Your task to perform on an android device: Open Amazon Image 0: 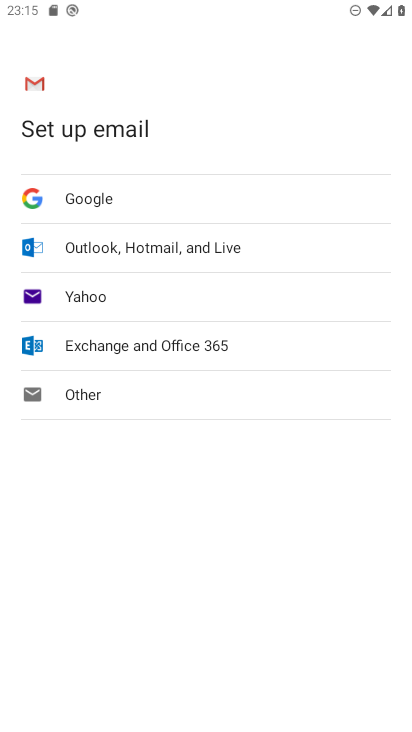
Step 0: press home button
Your task to perform on an android device: Open Amazon Image 1: 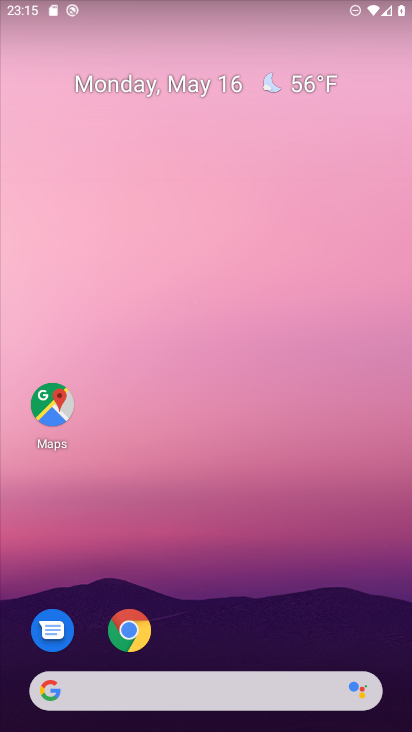
Step 1: drag from (236, 578) to (198, 234)
Your task to perform on an android device: Open Amazon Image 2: 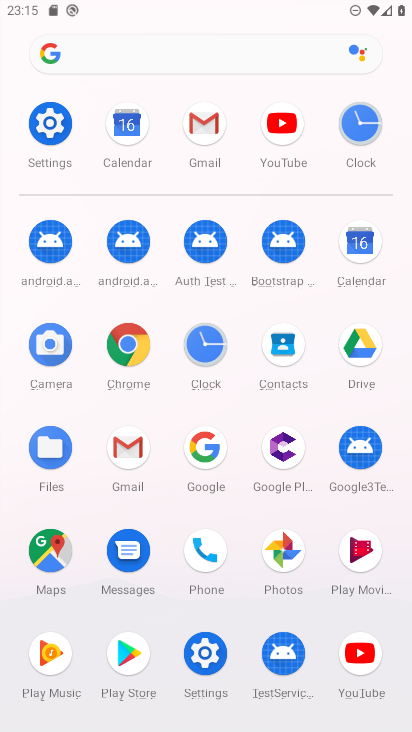
Step 2: click (200, 440)
Your task to perform on an android device: Open Amazon Image 3: 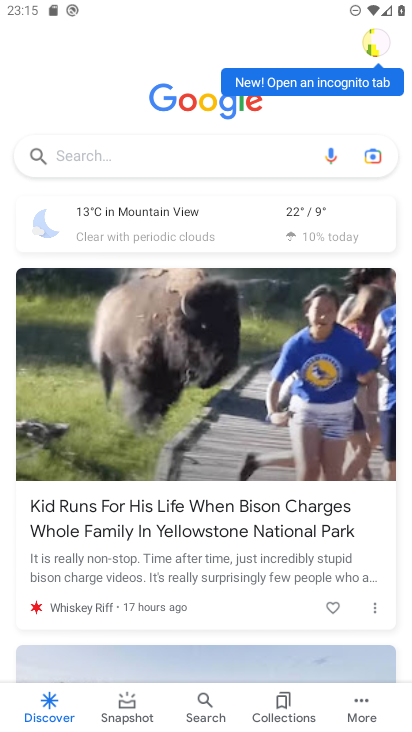
Step 3: click (182, 156)
Your task to perform on an android device: Open Amazon Image 4: 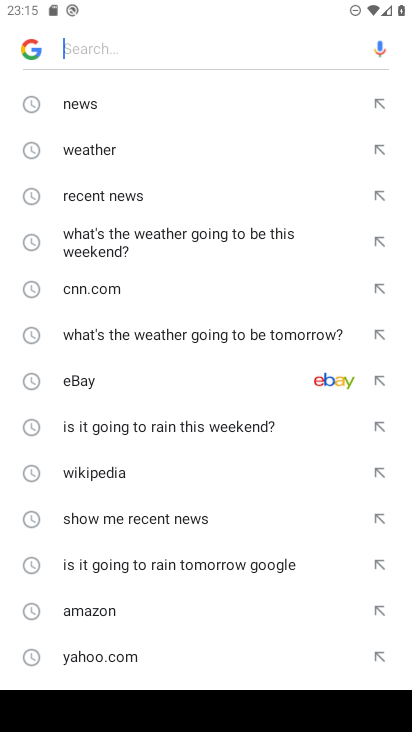
Step 4: click (106, 606)
Your task to perform on an android device: Open Amazon Image 5: 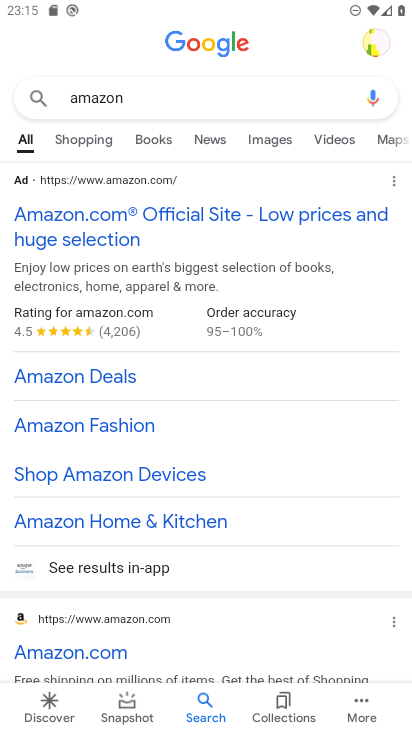
Step 5: click (89, 227)
Your task to perform on an android device: Open Amazon Image 6: 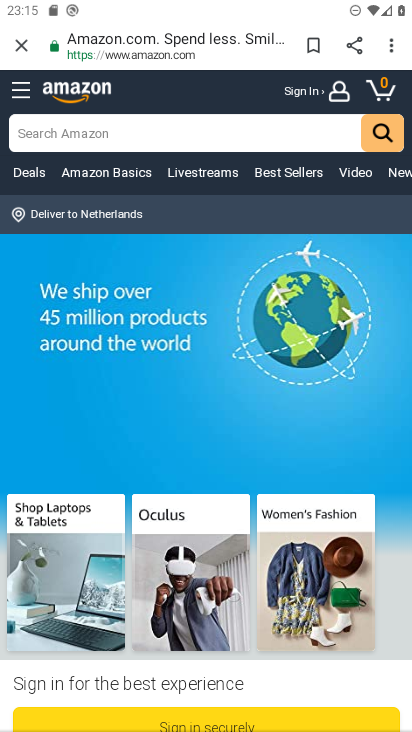
Step 6: task complete